Your task to perform on an android device: Search for Mexican restaurants on Maps Image 0: 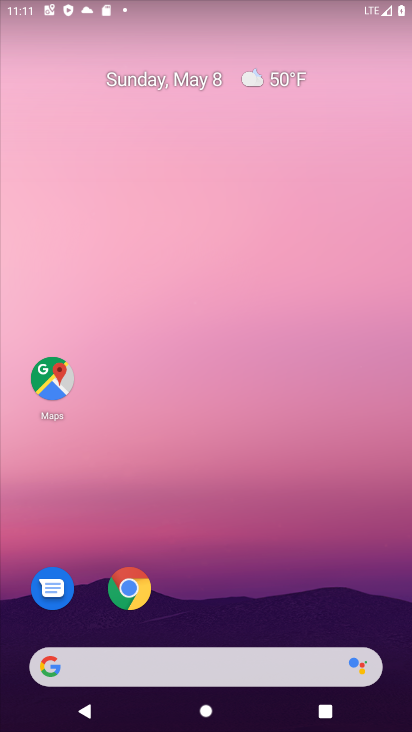
Step 0: click (51, 393)
Your task to perform on an android device: Search for Mexican restaurants on Maps Image 1: 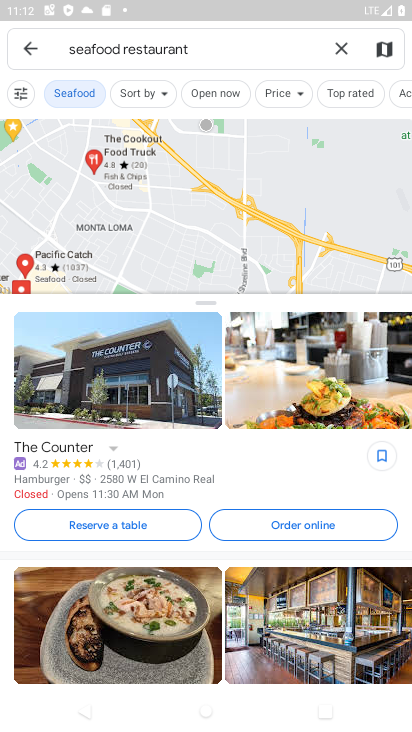
Step 1: click (280, 56)
Your task to perform on an android device: Search for Mexican restaurants on Maps Image 2: 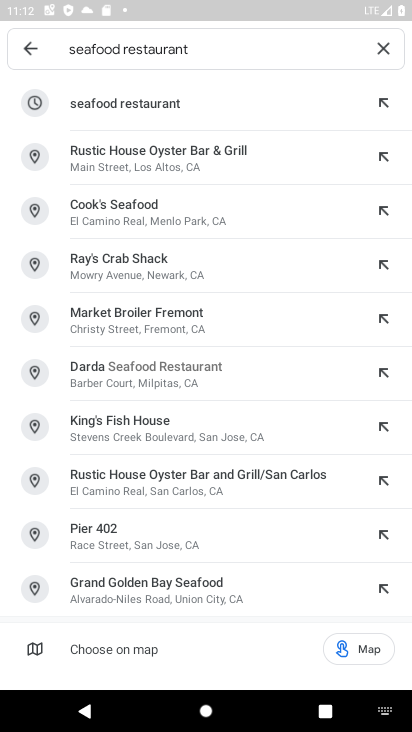
Step 2: click (383, 43)
Your task to perform on an android device: Search for Mexican restaurants on Maps Image 3: 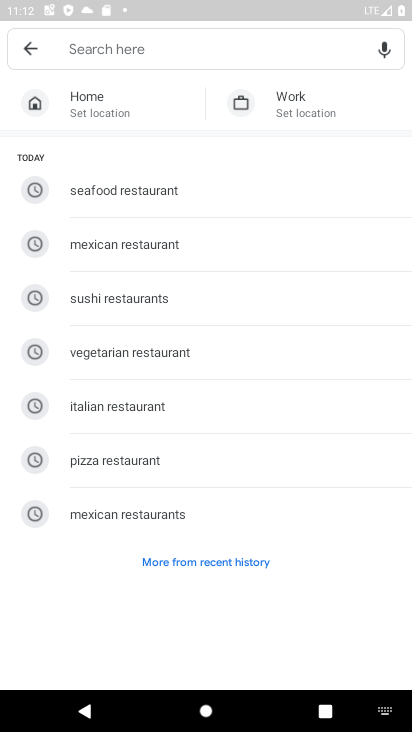
Step 3: click (93, 521)
Your task to perform on an android device: Search for Mexican restaurants on Maps Image 4: 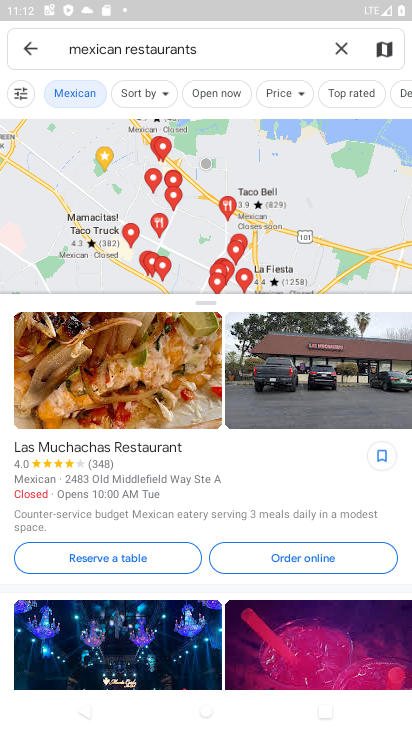
Step 4: task complete